Your task to perform on an android device: uninstall "WhatsApp Messenger" Image 0: 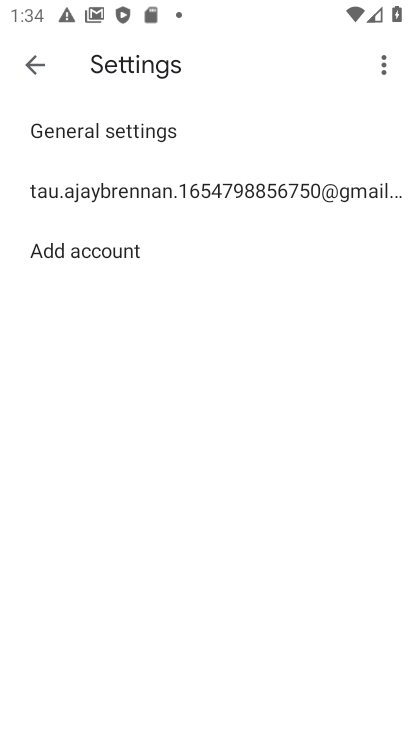
Step 0: press home button
Your task to perform on an android device: uninstall "WhatsApp Messenger" Image 1: 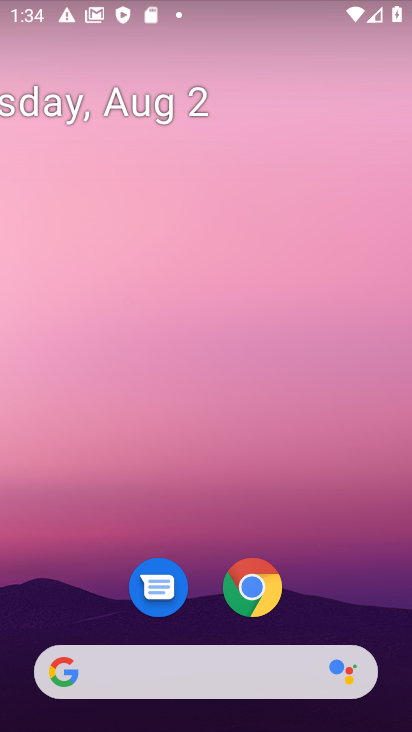
Step 1: drag from (220, 495) to (220, 176)
Your task to perform on an android device: uninstall "WhatsApp Messenger" Image 2: 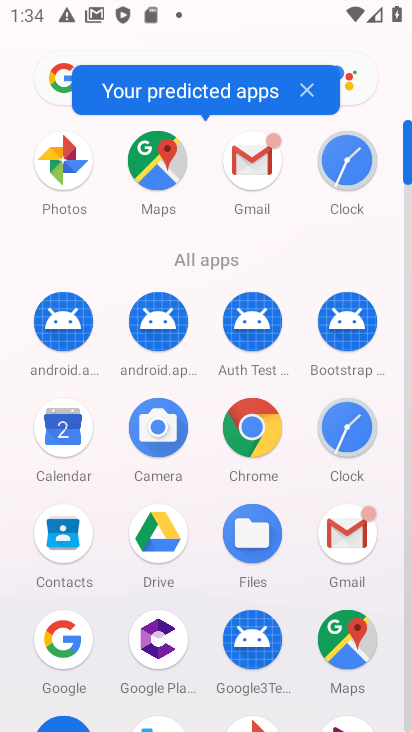
Step 2: drag from (126, 572) to (130, 239)
Your task to perform on an android device: uninstall "WhatsApp Messenger" Image 3: 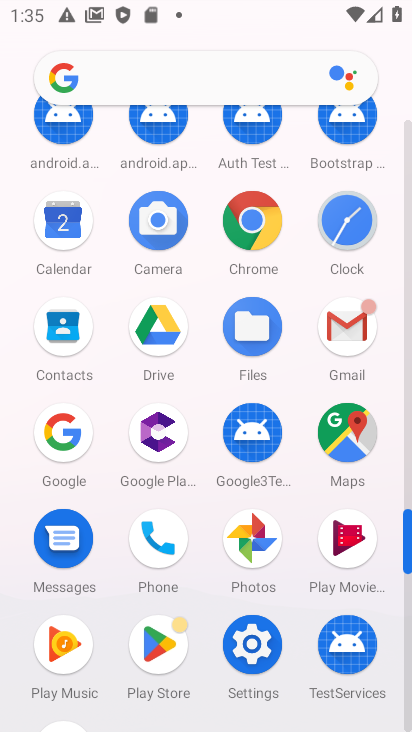
Step 3: click (146, 640)
Your task to perform on an android device: uninstall "WhatsApp Messenger" Image 4: 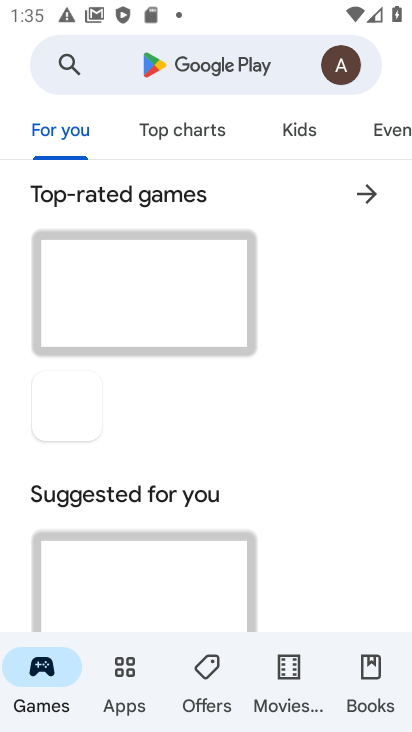
Step 4: click (222, 69)
Your task to perform on an android device: uninstall "WhatsApp Messenger" Image 5: 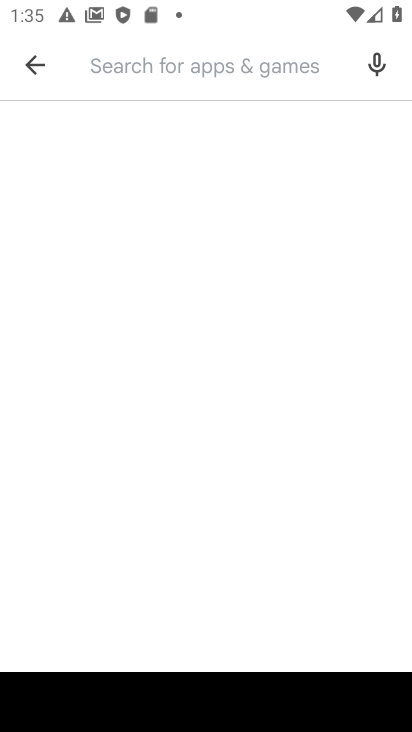
Step 5: type "WhatsApp Messenger"
Your task to perform on an android device: uninstall "WhatsApp Messenger" Image 6: 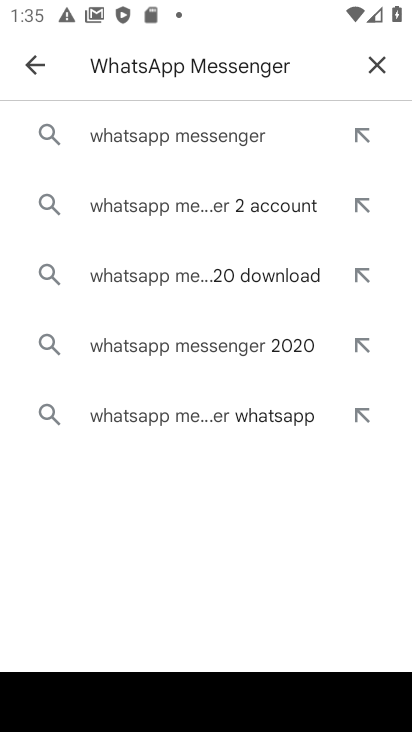
Step 6: click (231, 138)
Your task to perform on an android device: uninstall "WhatsApp Messenger" Image 7: 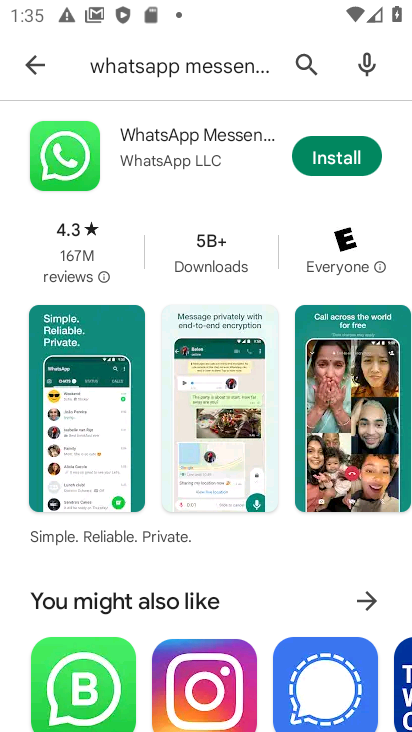
Step 7: task complete